Your task to perform on an android device: toggle wifi Image 0: 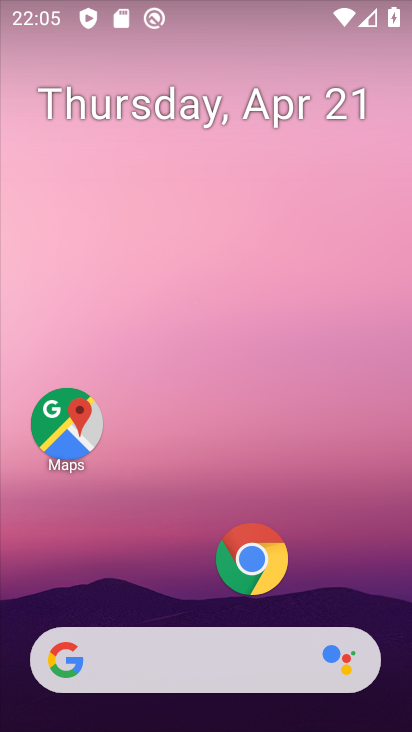
Step 0: drag from (162, 475) to (171, 129)
Your task to perform on an android device: toggle wifi Image 1: 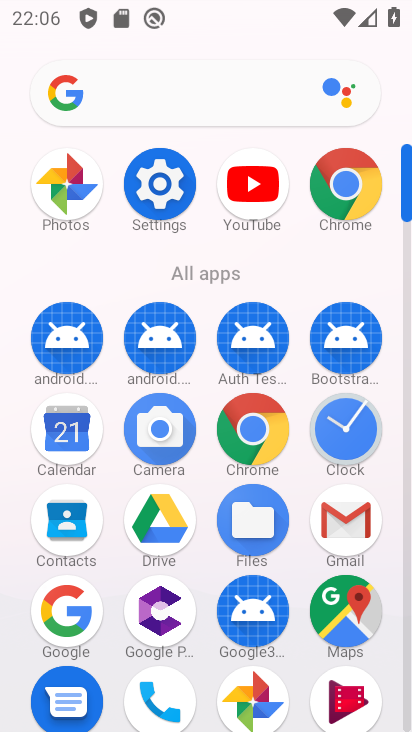
Step 1: click (160, 187)
Your task to perform on an android device: toggle wifi Image 2: 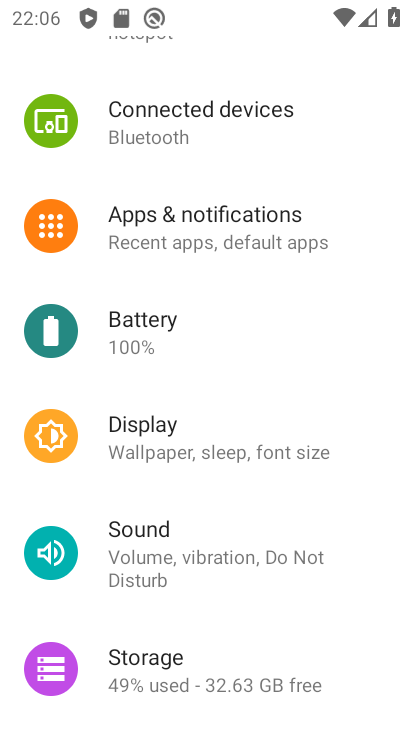
Step 2: drag from (184, 161) to (218, 550)
Your task to perform on an android device: toggle wifi Image 3: 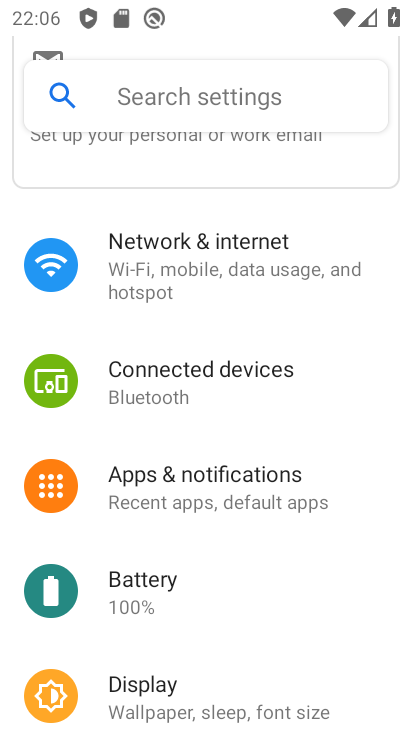
Step 3: click (210, 277)
Your task to perform on an android device: toggle wifi Image 4: 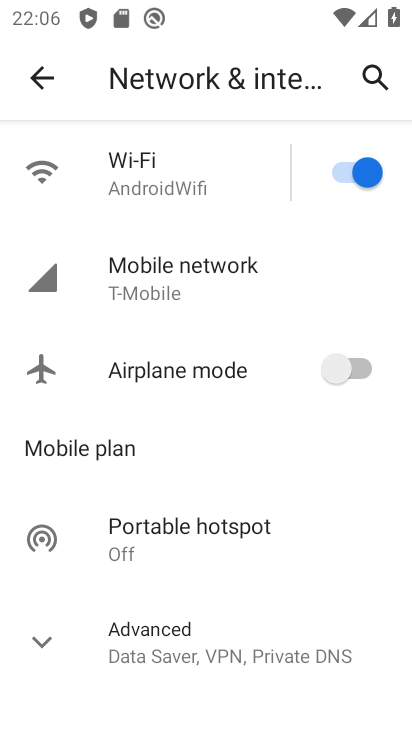
Step 4: click (352, 175)
Your task to perform on an android device: toggle wifi Image 5: 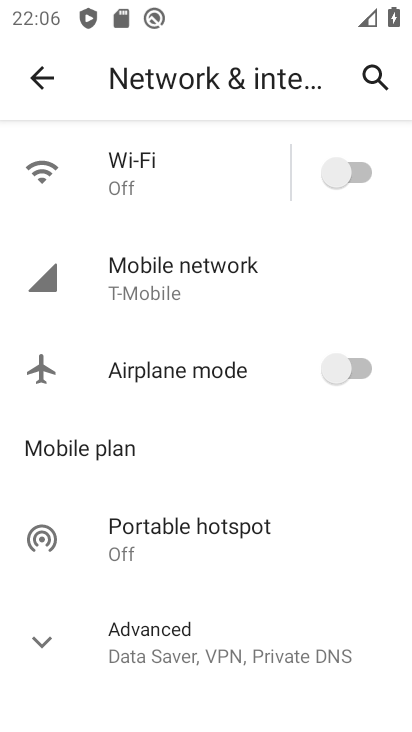
Step 5: task complete